Your task to perform on an android device: open app "eBay: The shopping marketplace" (install if not already installed) and go to login screen Image 0: 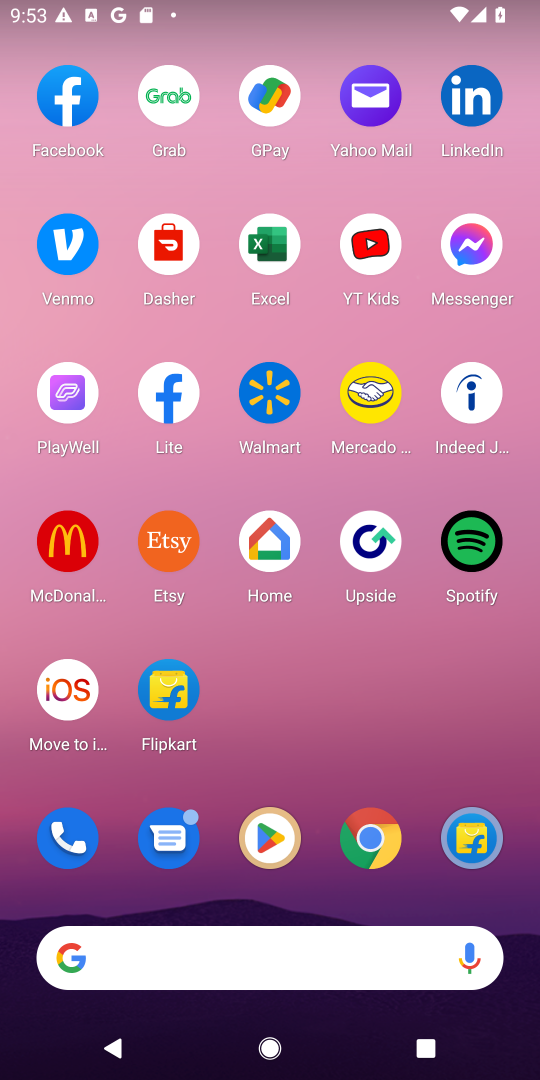
Step 0: click (288, 858)
Your task to perform on an android device: open app "eBay: The shopping marketplace" (install if not already installed) and go to login screen Image 1: 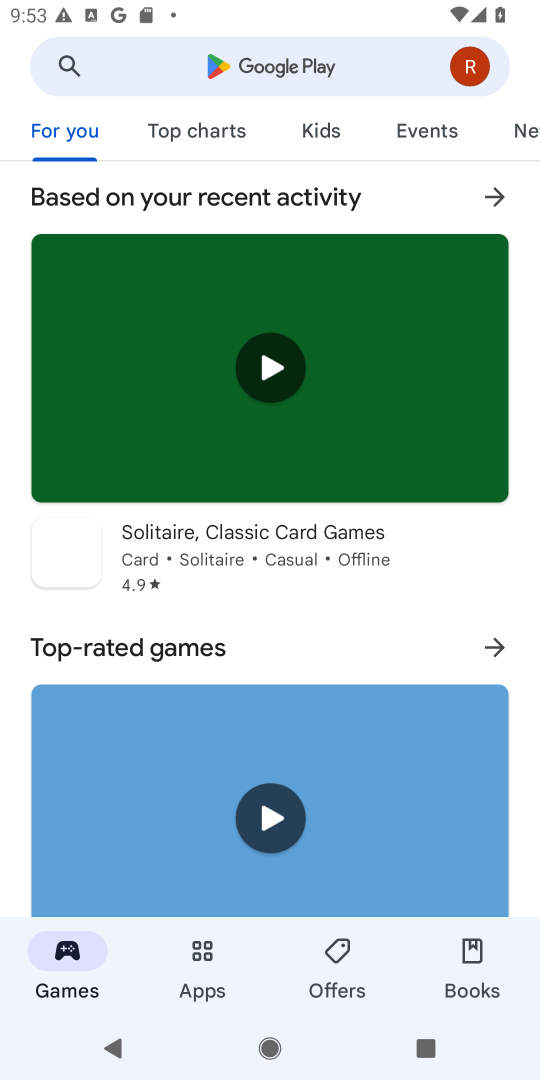
Step 1: click (61, 70)
Your task to perform on an android device: open app "eBay: The shopping marketplace" (install if not already installed) and go to login screen Image 2: 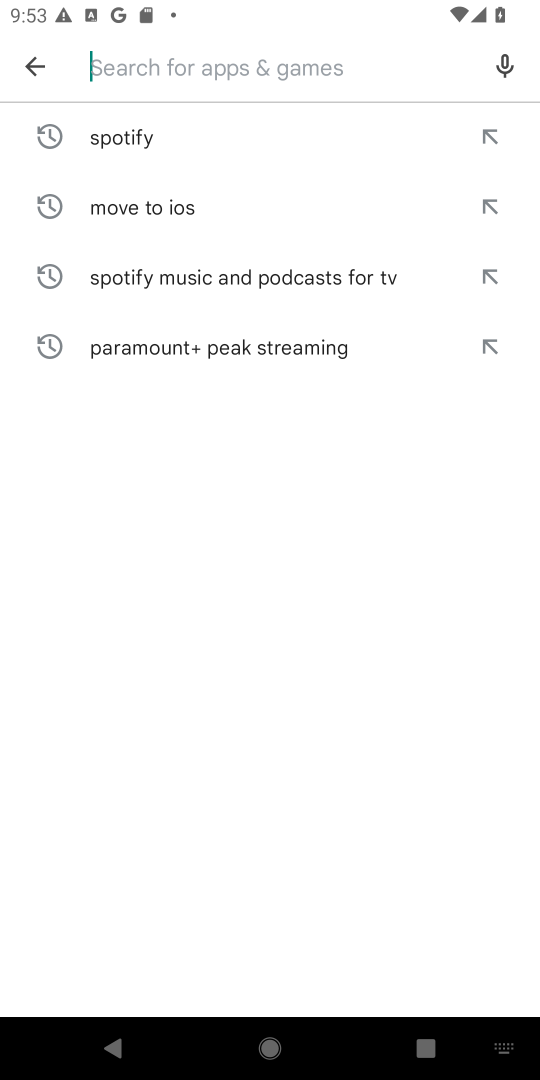
Step 2: click (158, 68)
Your task to perform on an android device: open app "eBay: The shopping marketplace" (install if not already installed) and go to login screen Image 3: 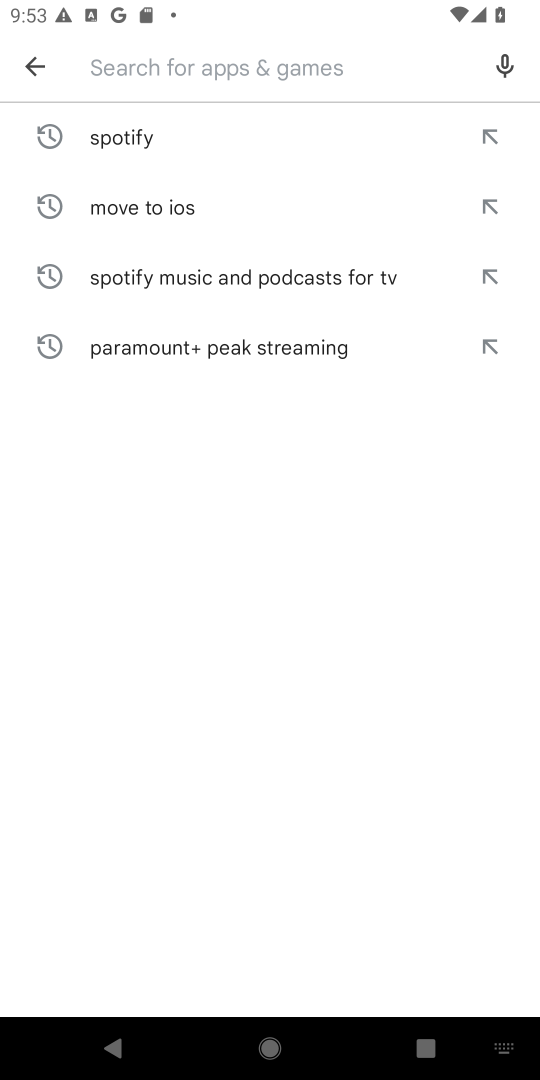
Step 3: type "eBay: The shopping marketplace"
Your task to perform on an android device: open app "eBay: The shopping marketplace" (install if not already installed) and go to login screen Image 4: 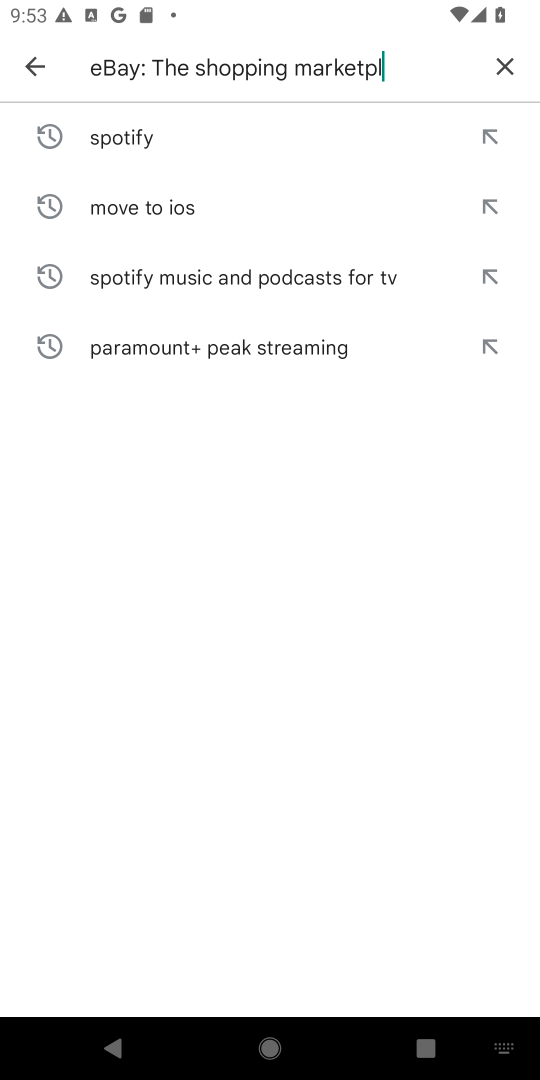
Step 4: type ""
Your task to perform on an android device: open app "eBay: The shopping marketplace" (install if not already installed) and go to login screen Image 5: 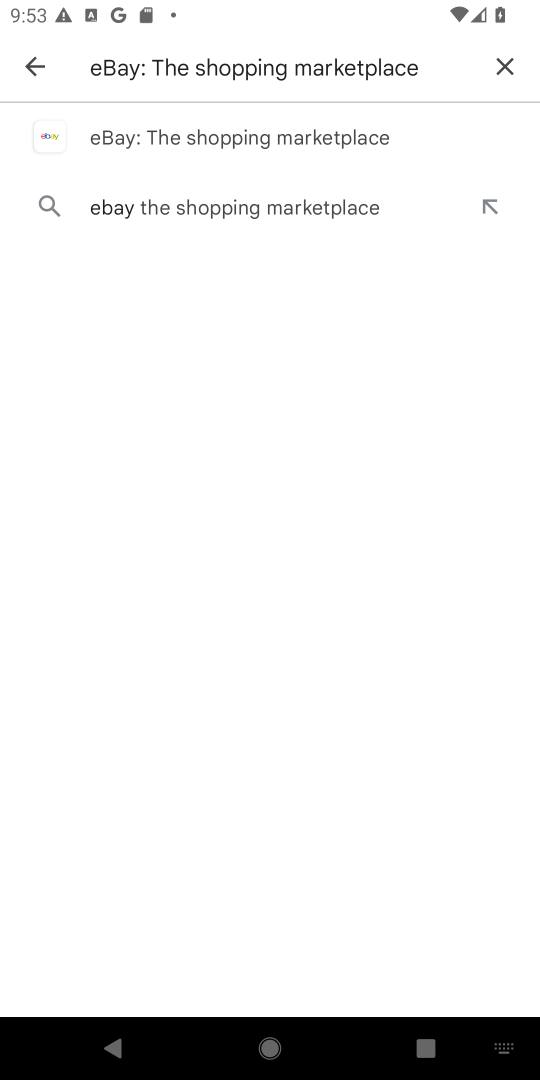
Step 5: click (189, 133)
Your task to perform on an android device: open app "eBay: The shopping marketplace" (install if not already installed) and go to login screen Image 6: 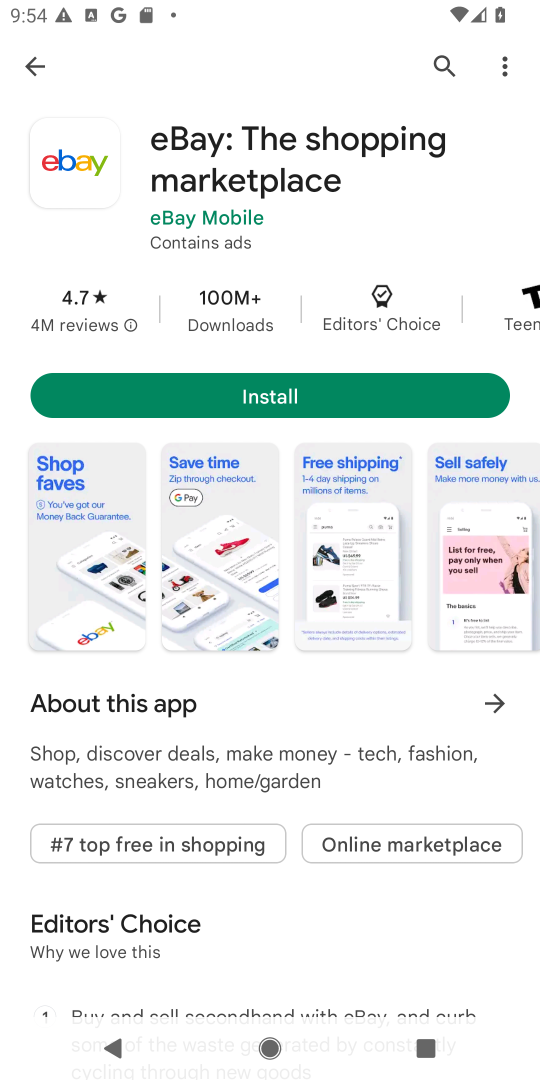
Step 6: click (261, 406)
Your task to perform on an android device: open app "eBay: The shopping marketplace" (install if not already installed) and go to login screen Image 7: 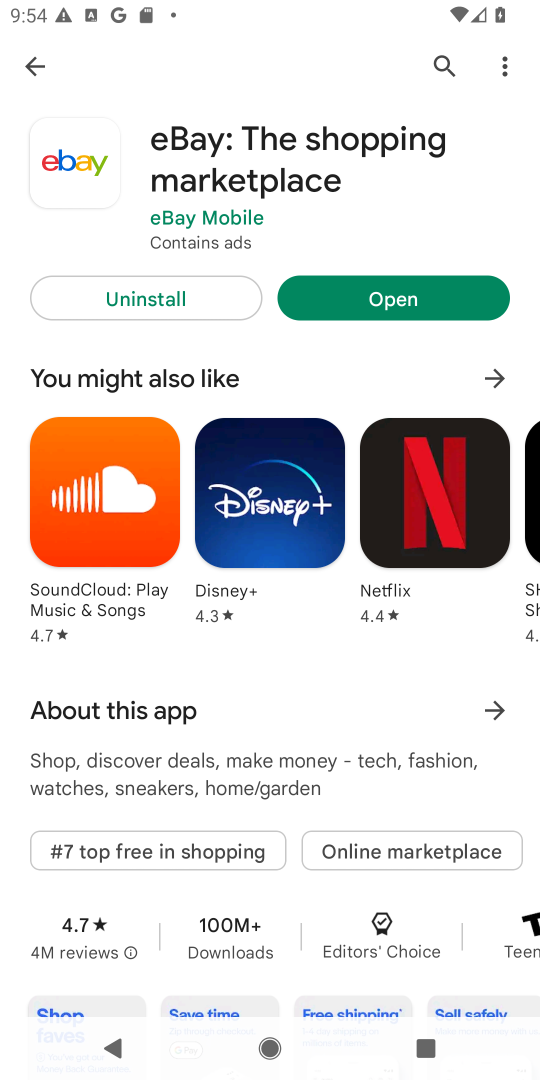
Step 7: click (438, 303)
Your task to perform on an android device: open app "eBay: The shopping marketplace" (install if not already installed) and go to login screen Image 8: 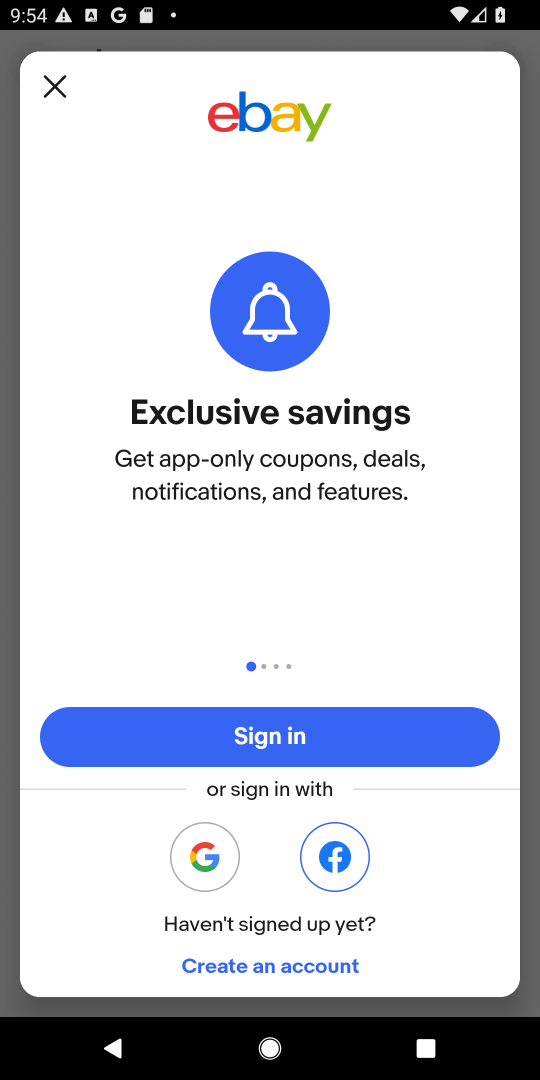
Step 8: task complete